Your task to perform on an android device: Open Chrome and go to settings Image 0: 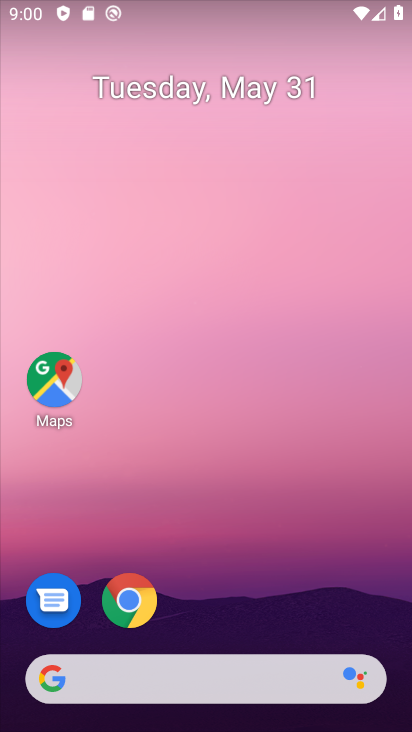
Step 0: press home button
Your task to perform on an android device: Open Chrome and go to settings Image 1: 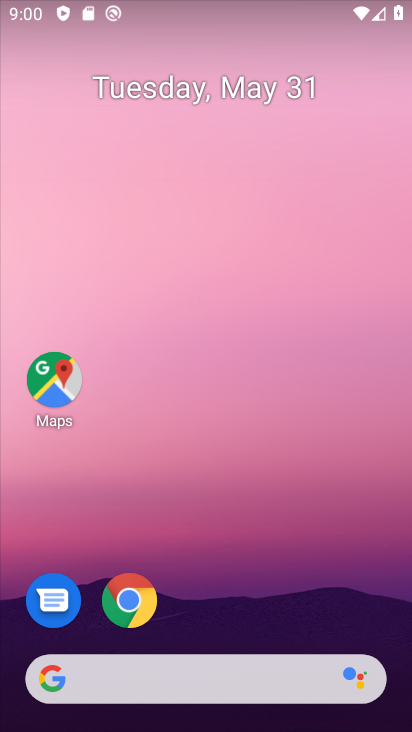
Step 1: drag from (186, 696) to (286, 28)
Your task to perform on an android device: Open Chrome and go to settings Image 2: 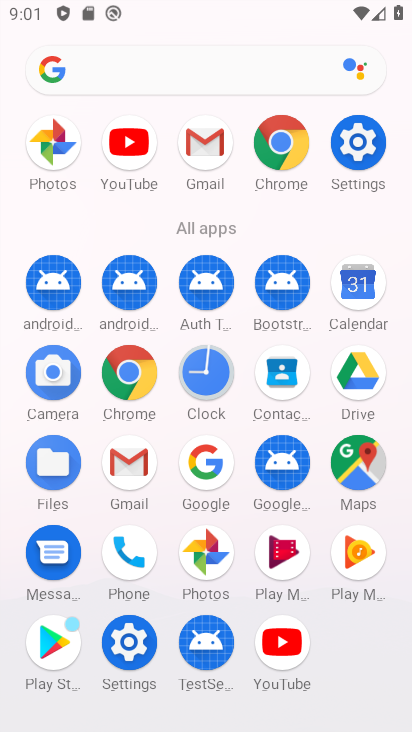
Step 2: click (276, 127)
Your task to perform on an android device: Open Chrome and go to settings Image 3: 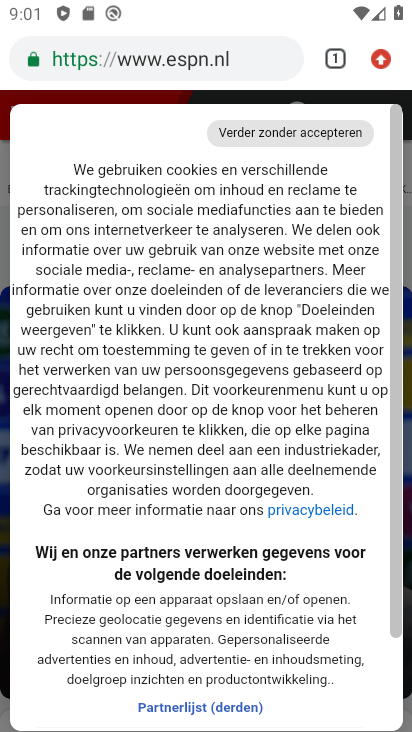
Step 3: click (378, 66)
Your task to perform on an android device: Open Chrome and go to settings Image 4: 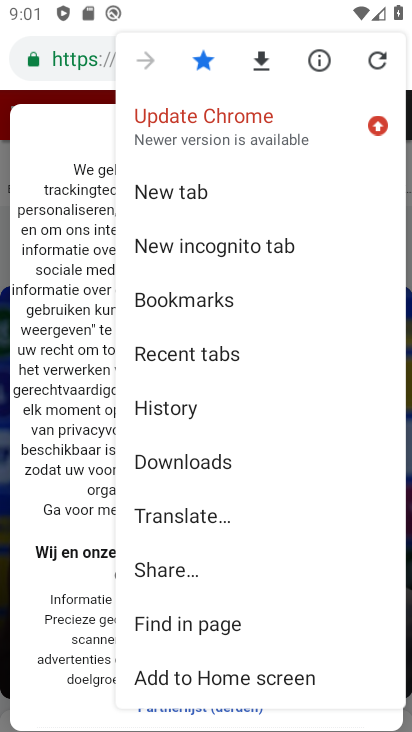
Step 4: drag from (219, 617) to (242, 432)
Your task to perform on an android device: Open Chrome and go to settings Image 5: 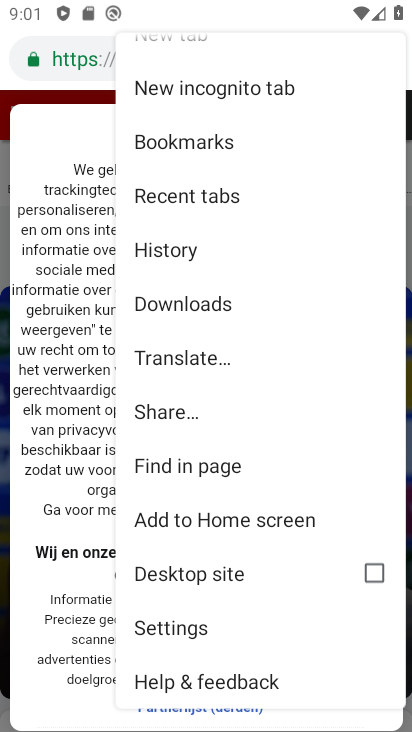
Step 5: click (177, 622)
Your task to perform on an android device: Open Chrome and go to settings Image 6: 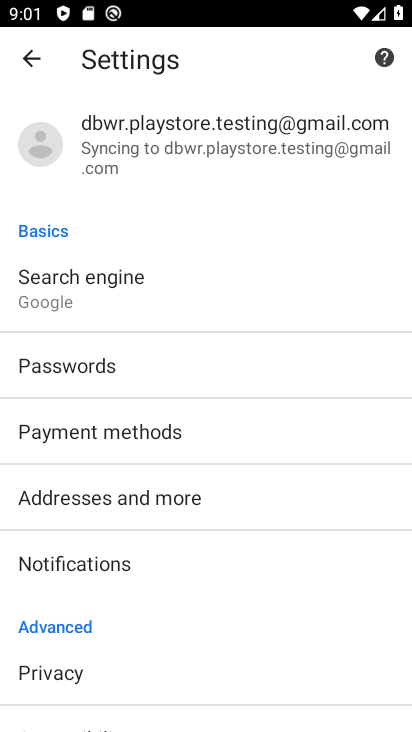
Step 6: task complete